Your task to perform on an android device: Search for "razer naga" on costco, select the first entry, add it to the cart, then select checkout. Image 0: 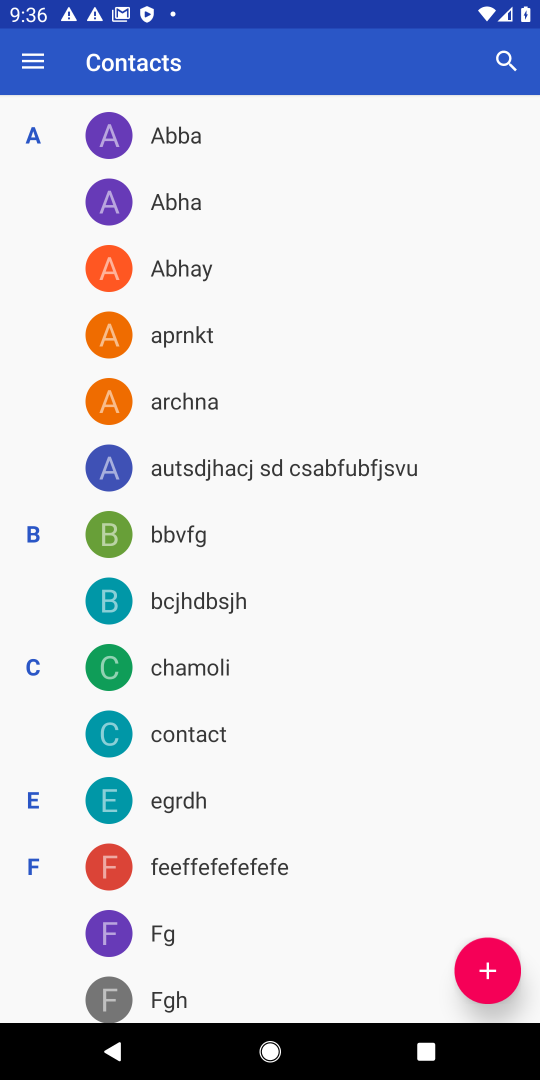
Step 0: press home button
Your task to perform on an android device: Search for "razer naga" on costco, select the first entry, add it to the cart, then select checkout. Image 1: 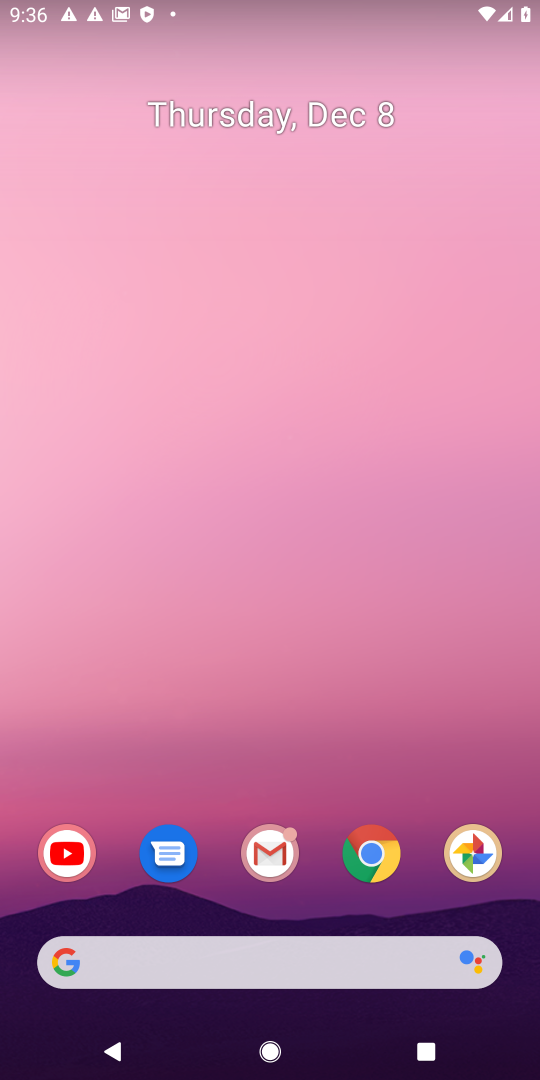
Step 1: click (267, 973)
Your task to perform on an android device: Search for "razer naga" on costco, select the first entry, add it to the cart, then select checkout. Image 2: 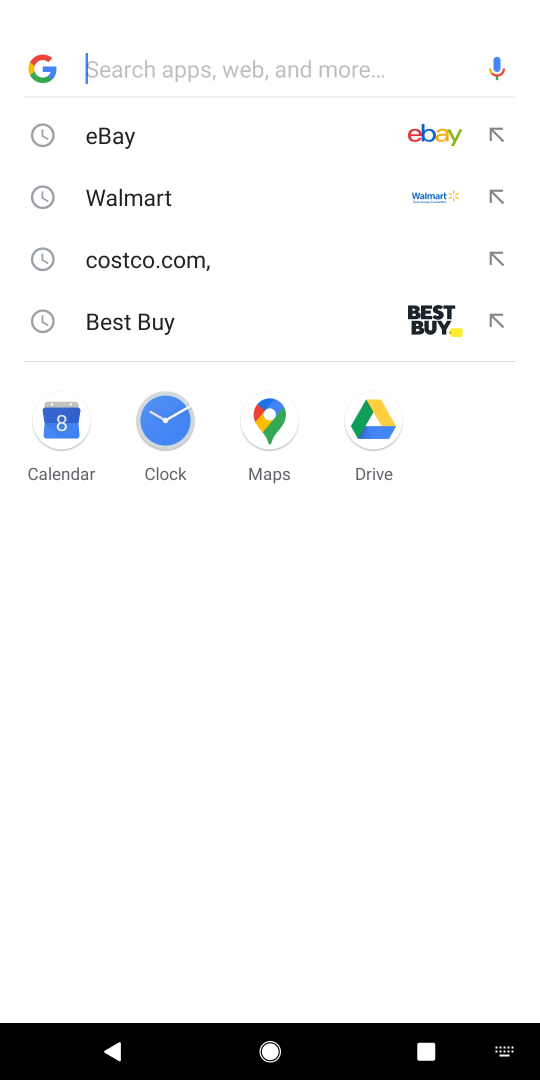
Step 2: click (136, 271)
Your task to perform on an android device: Search for "razer naga" on costco, select the first entry, add it to the cart, then select checkout. Image 3: 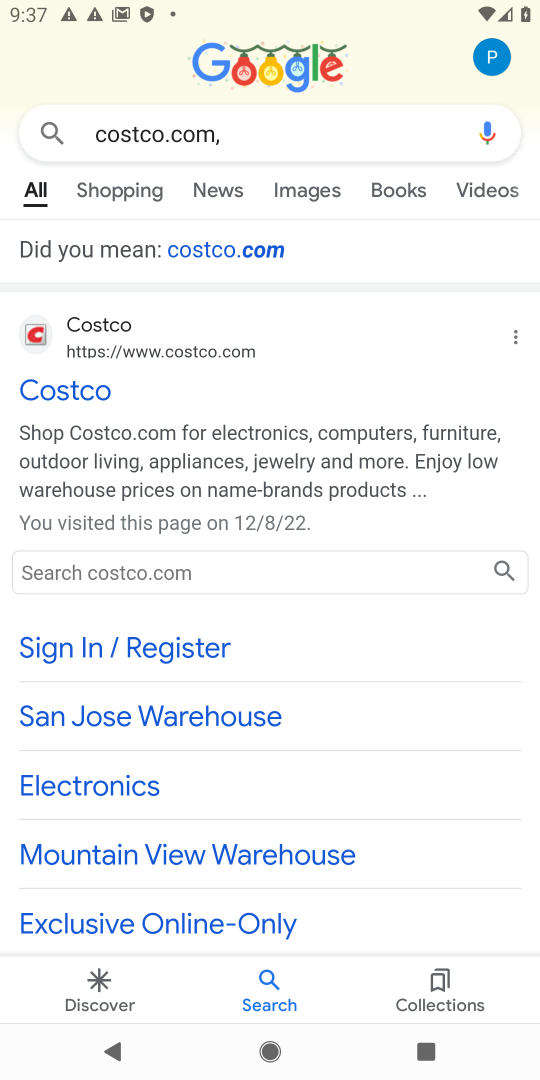
Step 3: click (64, 396)
Your task to perform on an android device: Search for "razer naga" on costco, select the first entry, add it to the cart, then select checkout. Image 4: 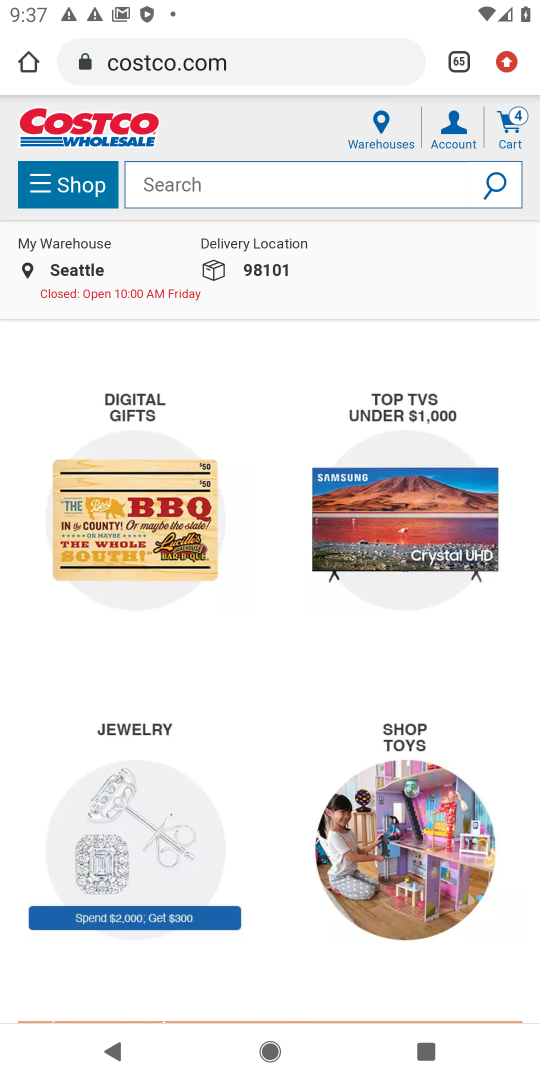
Step 4: click (234, 188)
Your task to perform on an android device: Search for "razer naga" on costco, select the first entry, add it to the cart, then select checkout. Image 5: 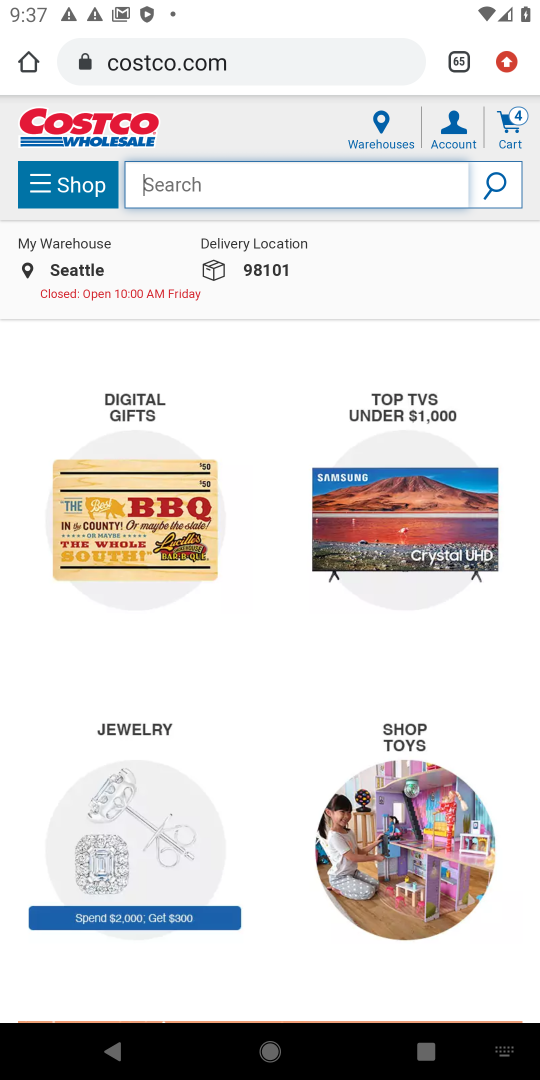
Step 5: type "razer naga"
Your task to perform on an android device: Search for "razer naga" on costco, select the first entry, add it to the cart, then select checkout. Image 6: 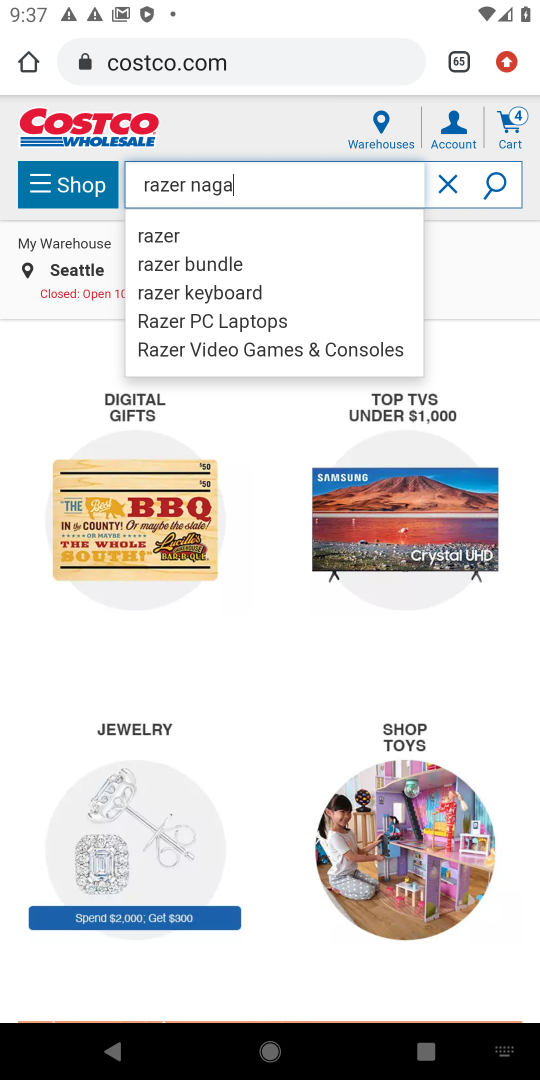
Step 6: click (486, 181)
Your task to perform on an android device: Search for "razer naga" on costco, select the first entry, add it to the cart, then select checkout. Image 7: 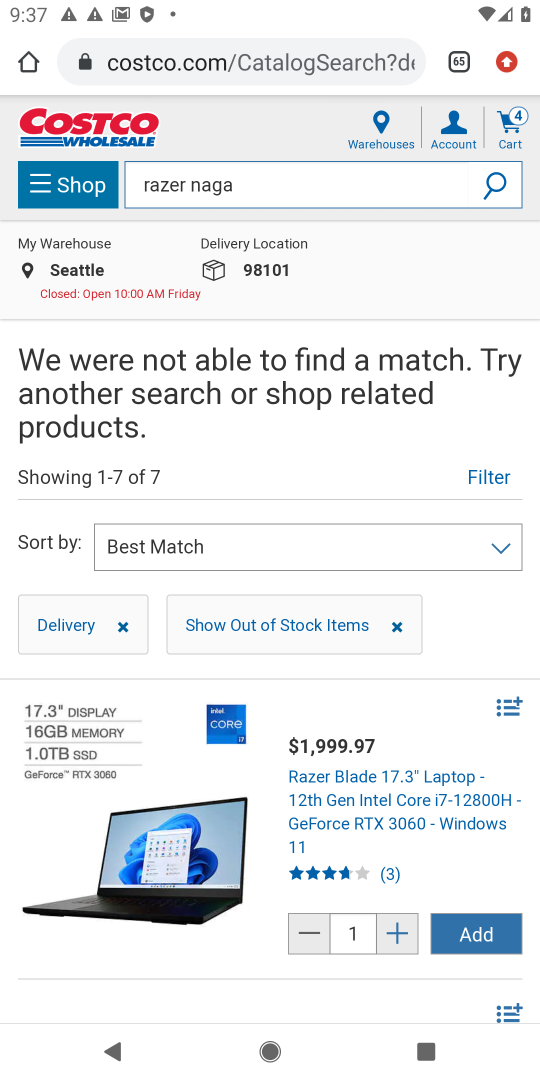
Step 7: click (450, 931)
Your task to perform on an android device: Search for "razer naga" on costco, select the first entry, add it to the cart, then select checkout. Image 8: 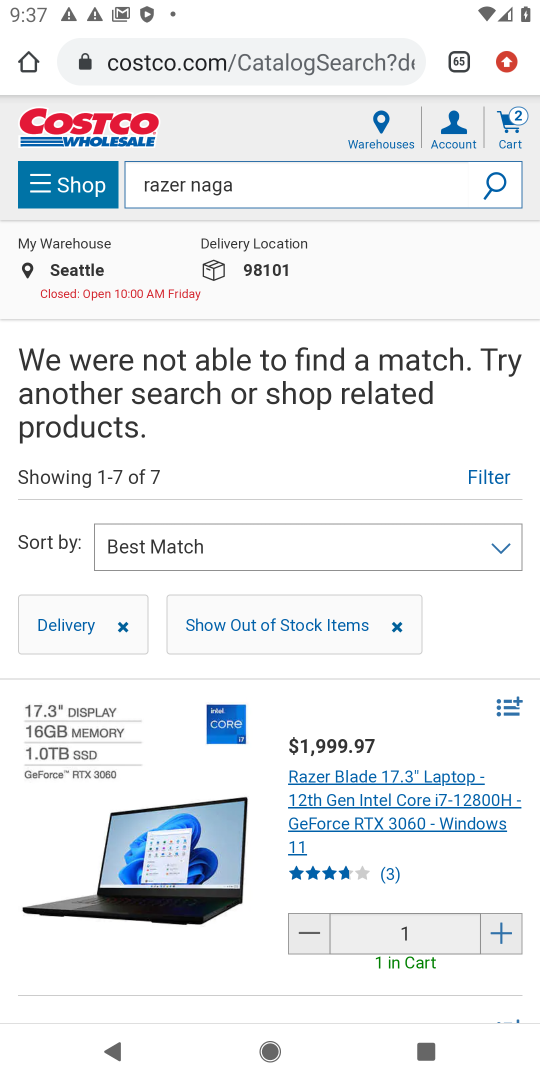
Step 8: click (503, 126)
Your task to perform on an android device: Search for "razer naga" on costco, select the first entry, add it to the cart, then select checkout. Image 9: 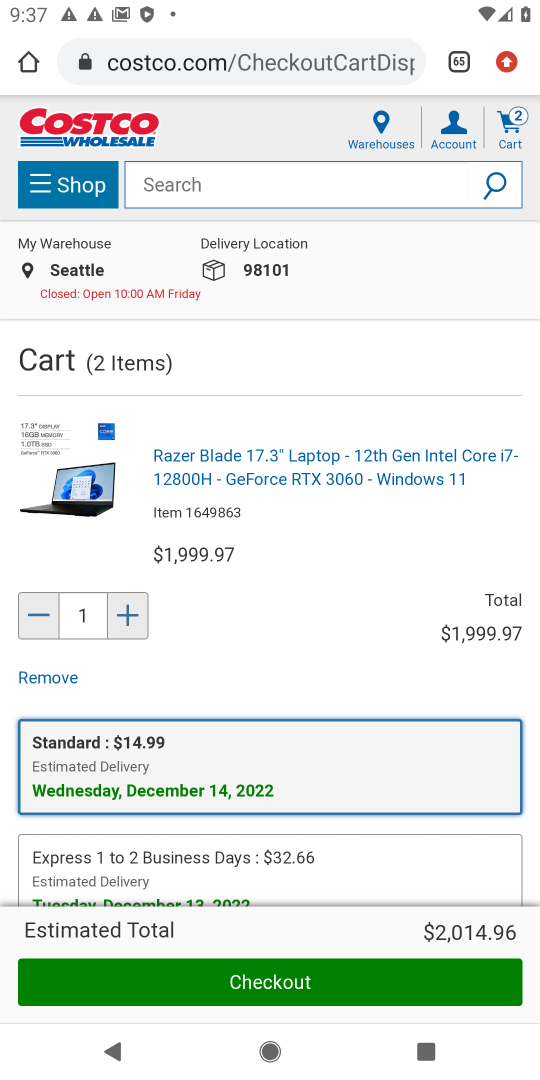
Step 9: click (271, 987)
Your task to perform on an android device: Search for "razer naga" on costco, select the first entry, add it to the cart, then select checkout. Image 10: 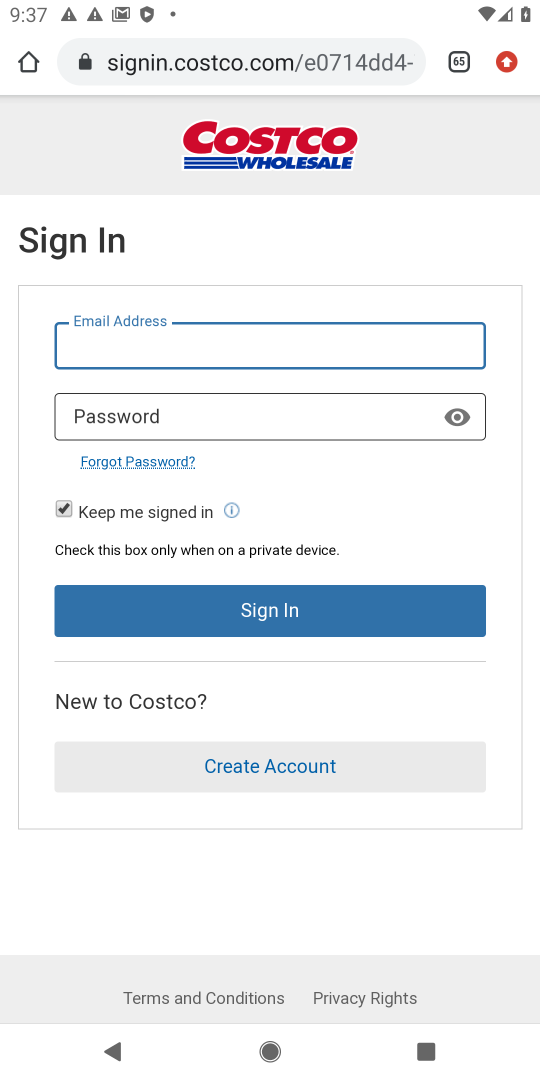
Step 10: task complete